Your task to perform on an android device: turn off data saver in the chrome app Image 0: 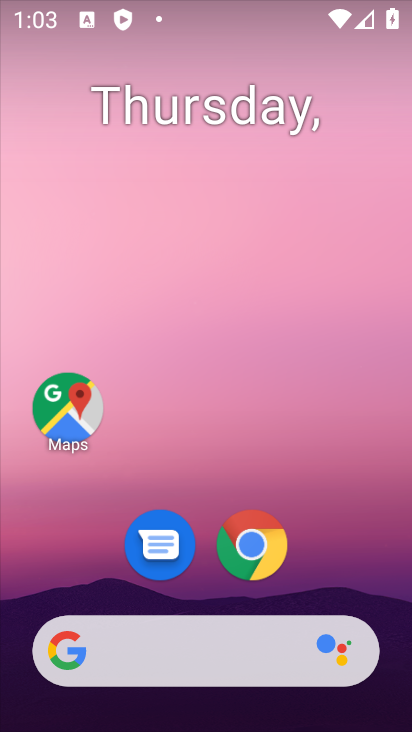
Step 0: drag from (215, 669) to (207, 59)
Your task to perform on an android device: turn off data saver in the chrome app Image 1: 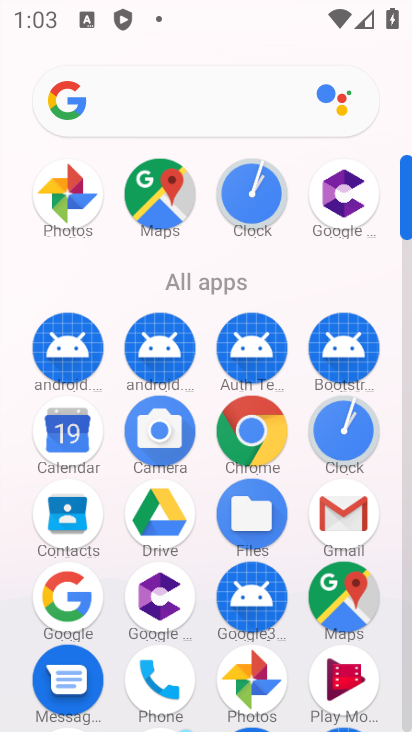
Step 1: click (267, 430)
Your task to perform on an android device: turn off data saver in the chrome app Image 2: 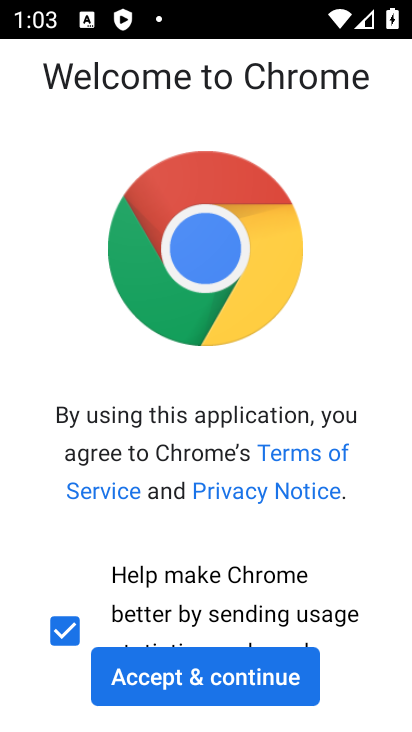
Step 2: click (224, 683)
Your task to perform on an android device: turn off data saver in the chrome app Image 3: 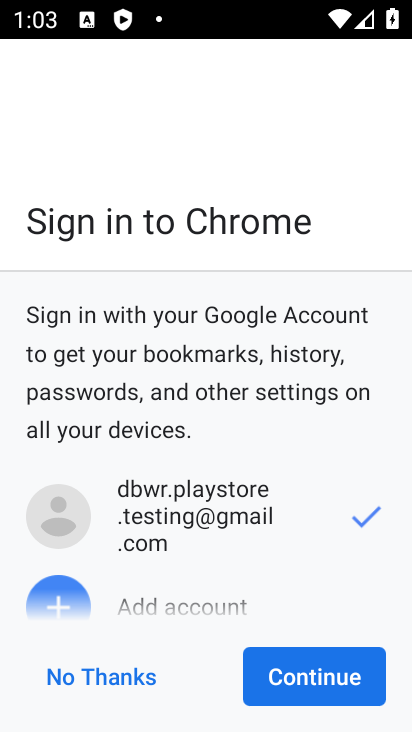
Step 3: click (116, 684)
Your task to perform on an android device: turn off data saver in the chrome app Image 4: 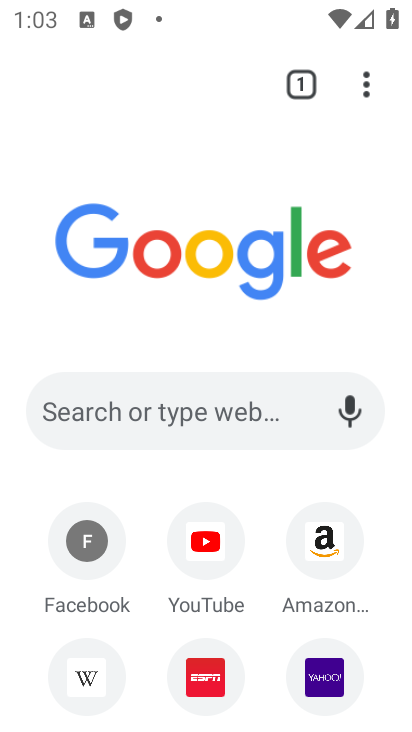
Step 4: drag from (356, 79) to (113, 599)
Your task to perform on an android device: turn off data saver in the chrome app Image 5: 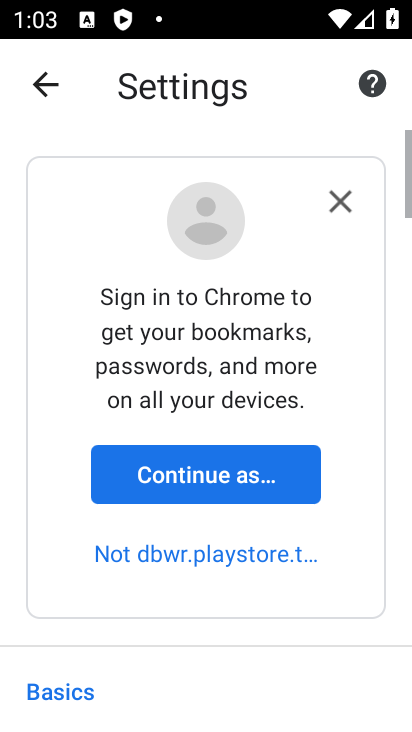
Step 5: drag from (277, 658) to (322, 98)
Your task to perform on an android device: turn off data saver in the chrome app Image 6: 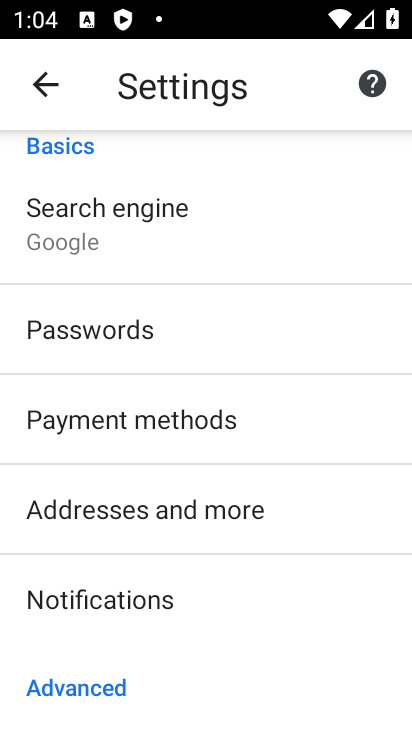
Step 6: drag from (307, 649) to (306, 146)
Your task to perform on an android device: turn off data saver in the chrome app Image 7: 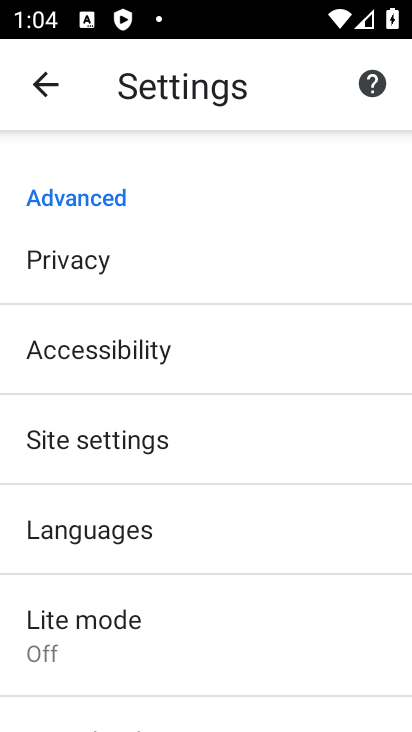
Step 7: click (160, 437)
Your task to perform on an android device: turn off data saver in the chrome app Image 8: 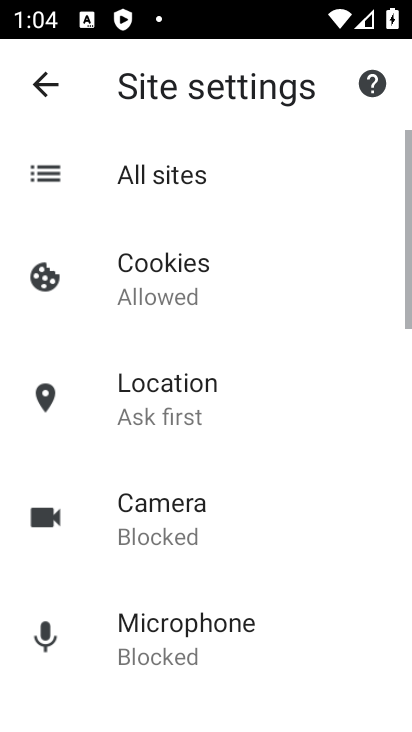
Step 8: press back button
Your task to perform on an android device: turn off data saver in the chrome app Image 9: 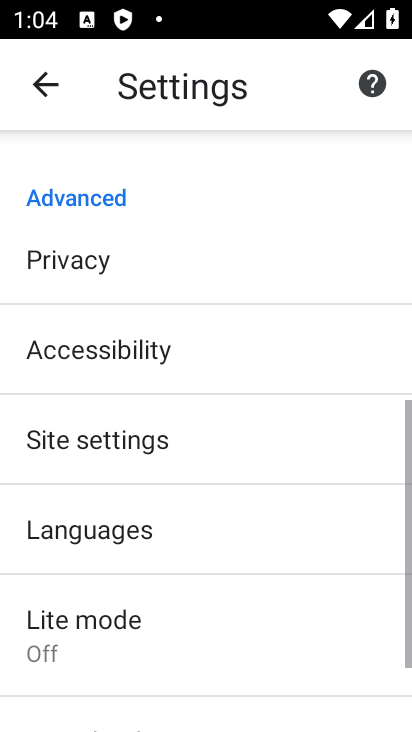
Step 9: click (175, 651)
Your task to perform on an android device: turn off data saver in the chrome app Image 10: 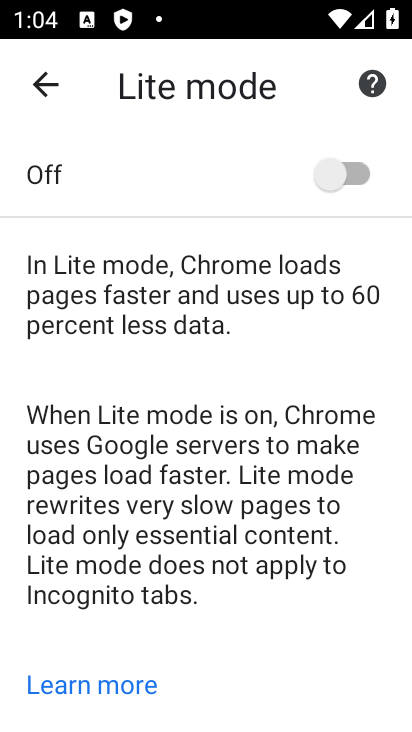
Step 10: task complete